Your task to perform on an android device: toggle notification dots Image 0: 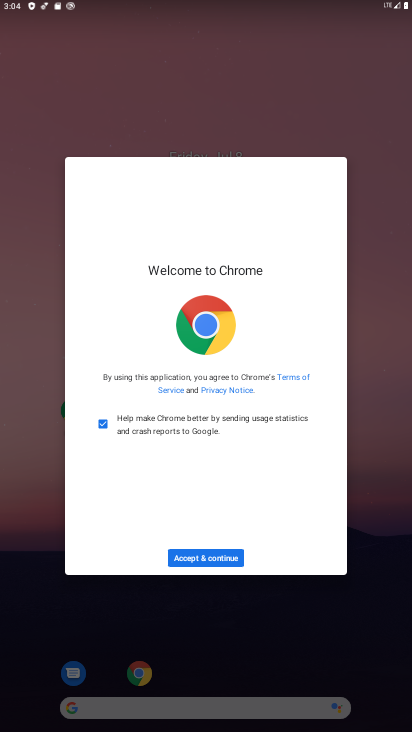
Step 0: click (307, 636)
Your task to perform on an android device: toggle notification dots Image 1: 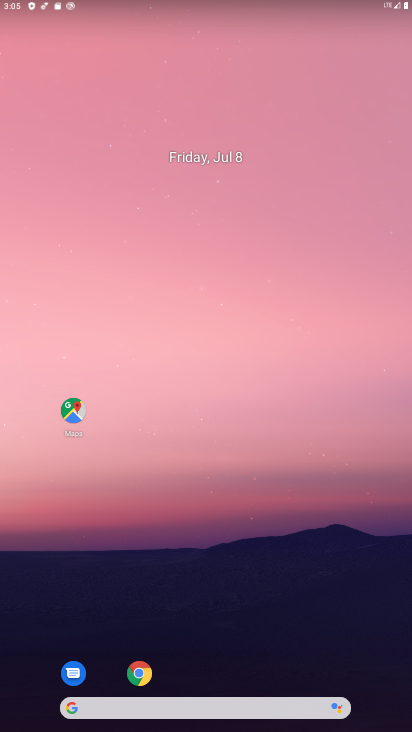
Step 1: drag from (190, 682) to (266, 295)
Your task to perform on an android device: toggle notification dots Image 2: 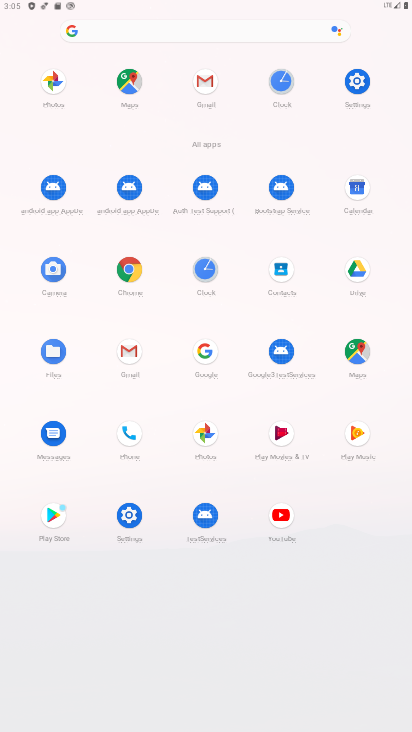
Step 2: click (128, 513)
Your task to perform on an android device: toggle notification dots Image 3: 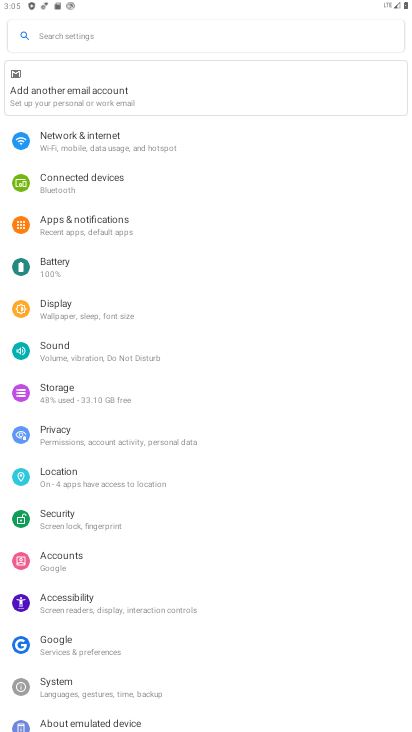
Step 3: click (121, 238)
Your task to perform on an android device: toggle notification dots Image 4: 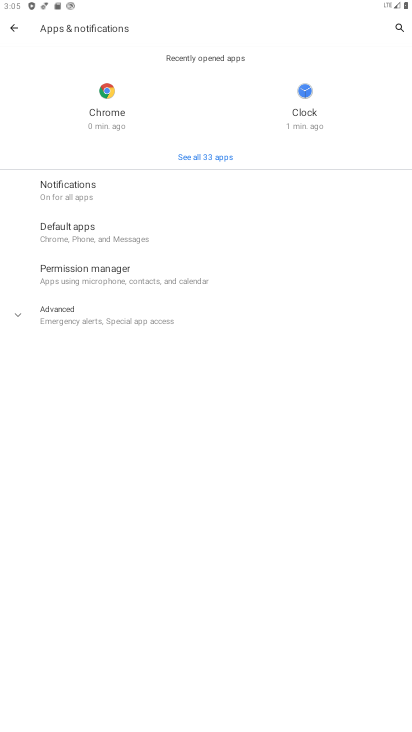
Step 4: click (141, 199)
Your task to perform on an android device: toggle notification dots Image 5: 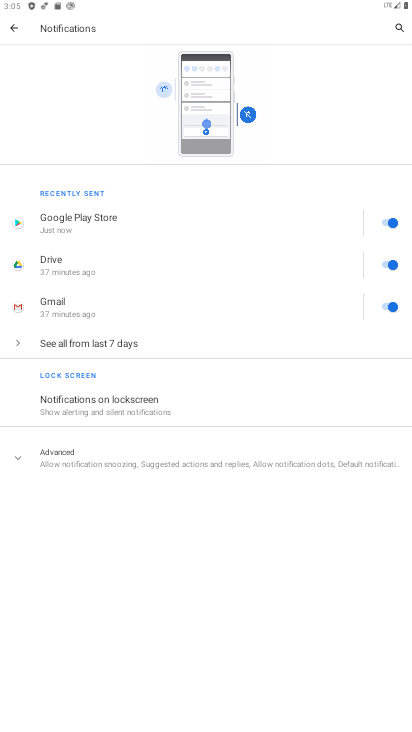
Step 5: click (123, 454)
Your task to perform on an android device: toggle notification dots Image 6: 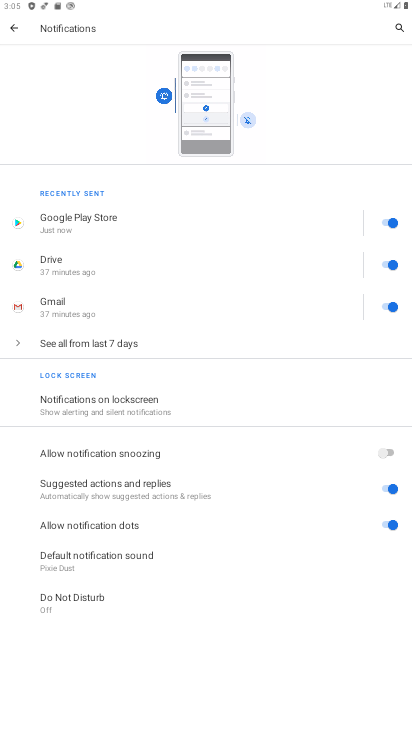
Step 6: click (389, 528)
Your task to perform on an android device: toggle notification dots Image 7: 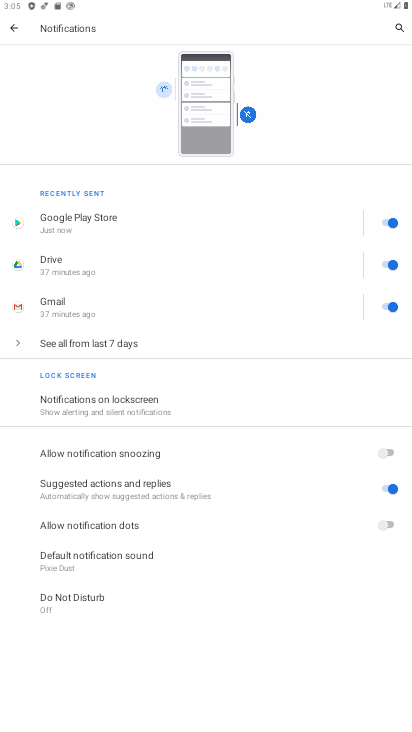
Step 7: task complete